Your task to perform on an android device: Open the map Image 0: 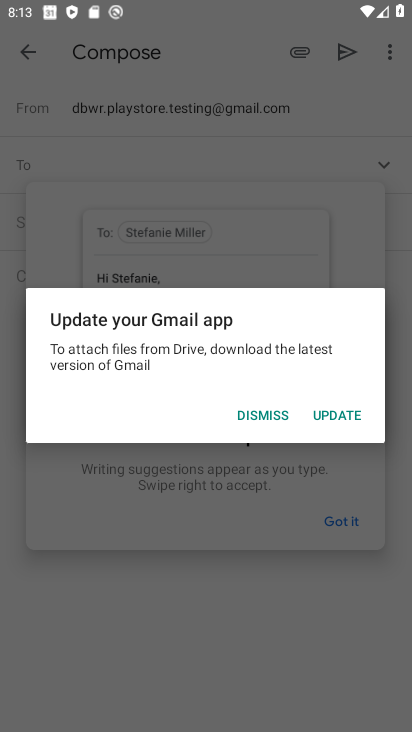
Step 0: press home button
Your task to perform on an android device: Open the map Image 1: 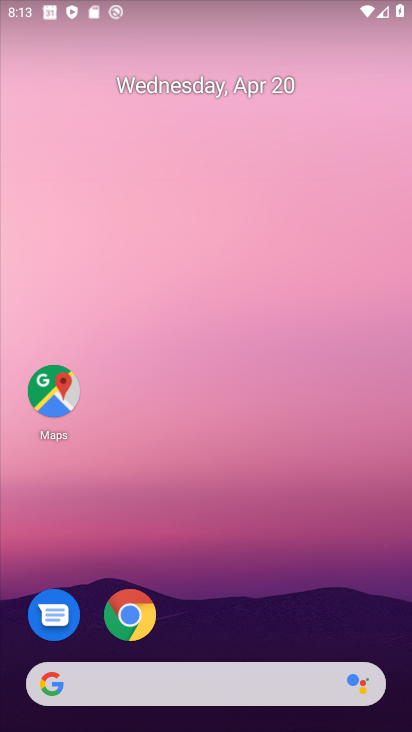
Step 1: drag from (205, 602) to (149, 36)
Your task to perform on an android device: Open the map Image 2: 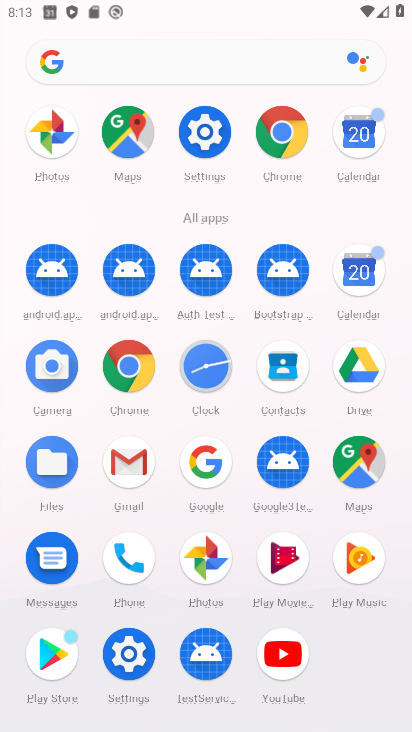
Step 2: click (141, 150)
Your task to perform on an android device: Open the map Image 3: 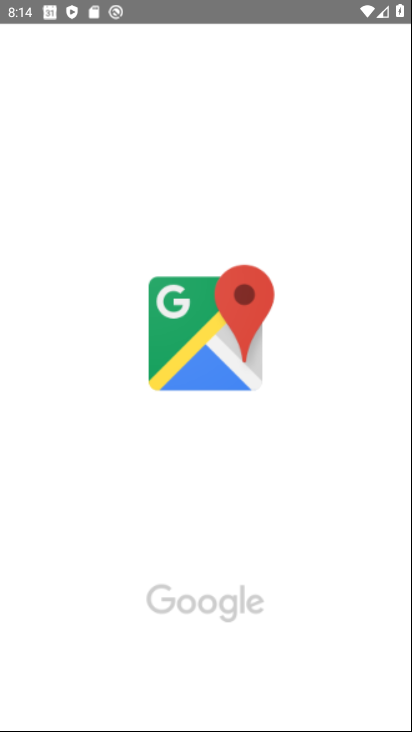
Step 3: task complete